Your task to perform on an android device: Google the capital of Brazil Image 0: 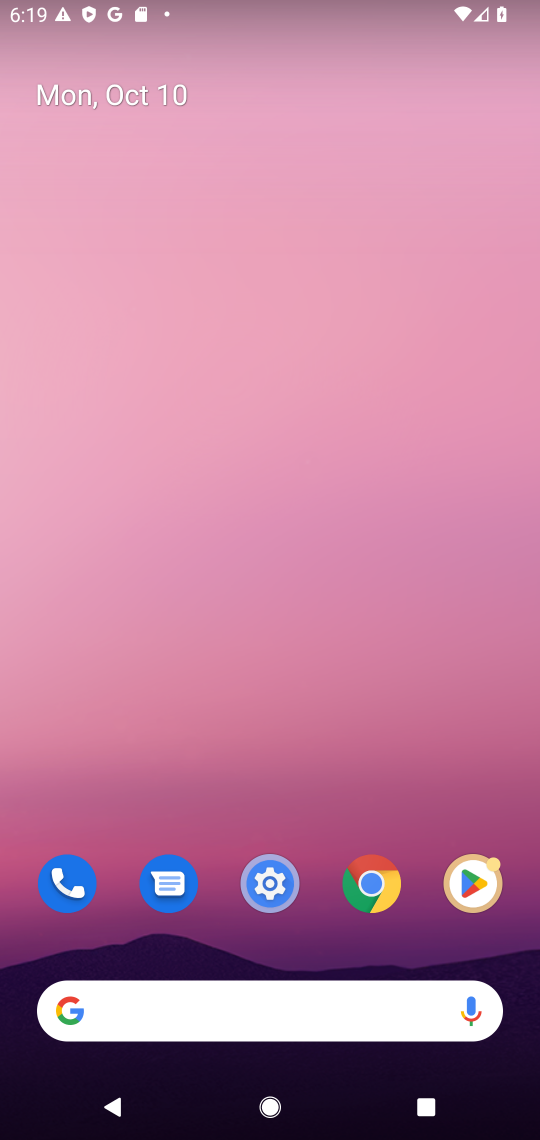
Step 0: drag from (278, 995) to (336, 199)
Your task to perform on an android device: Google the capital of Brazil Image 1: 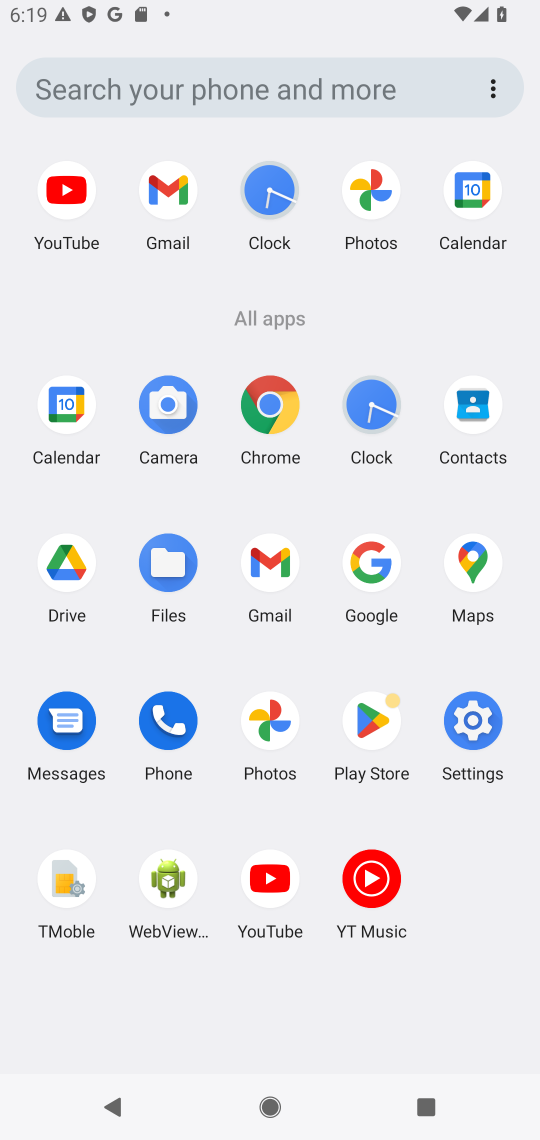
Step 1: click (375, 611)
Your task to perform on an android device: Google the capital of Brazil Image 2: 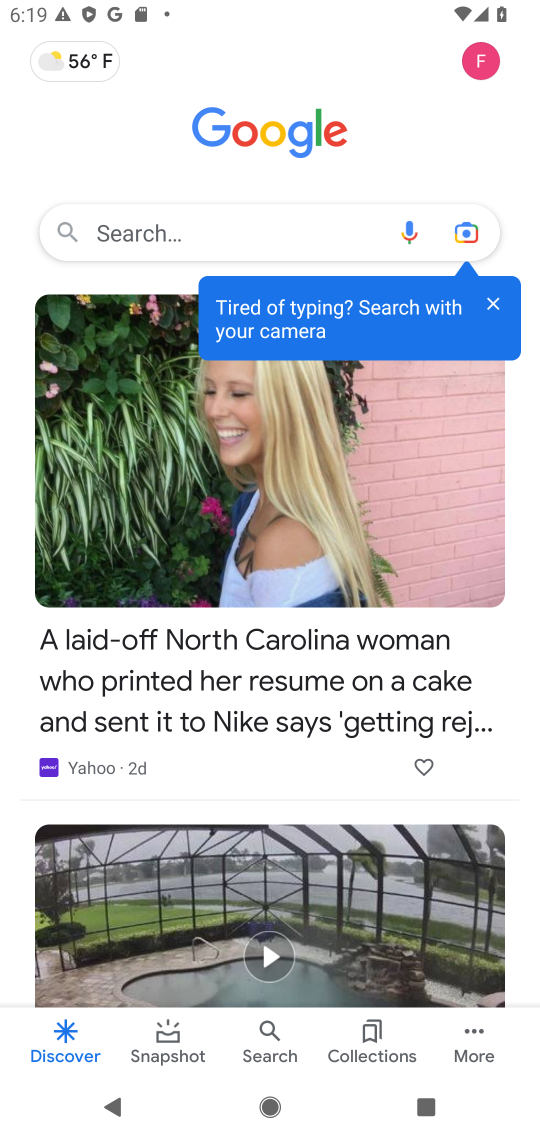
Step 2: click (226, 211)
Your task to perform on an android device: Google the capital of Brazil Image 3: 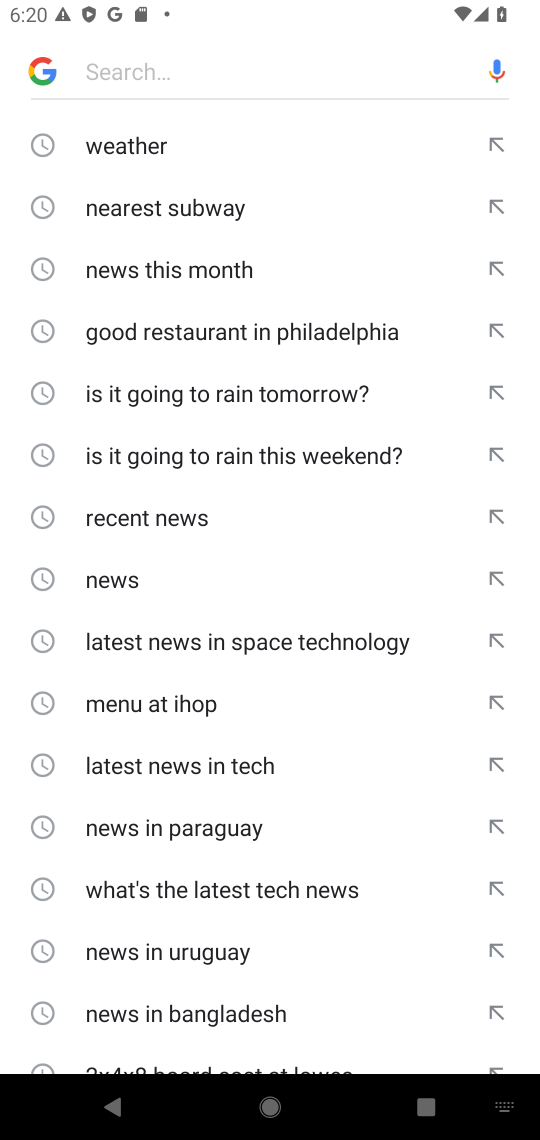
Step 3: type "capital of brazil"
Your task to perform on an android device: Google the capital of Brazil Image 4: 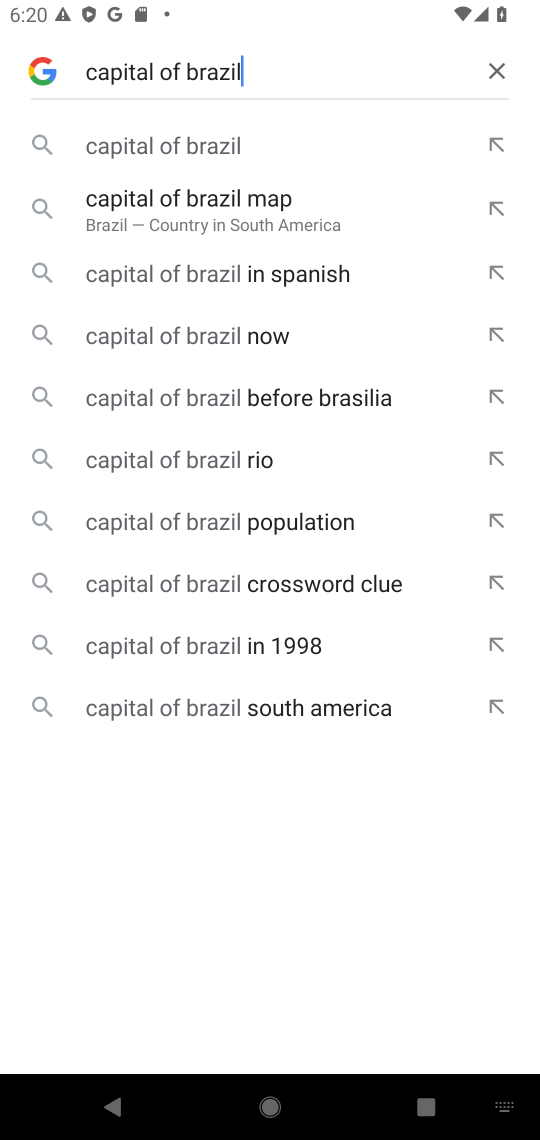
Step 4: click (170, 138)
Your task to perform on an android device: Google the capital of Brazil Image 5: 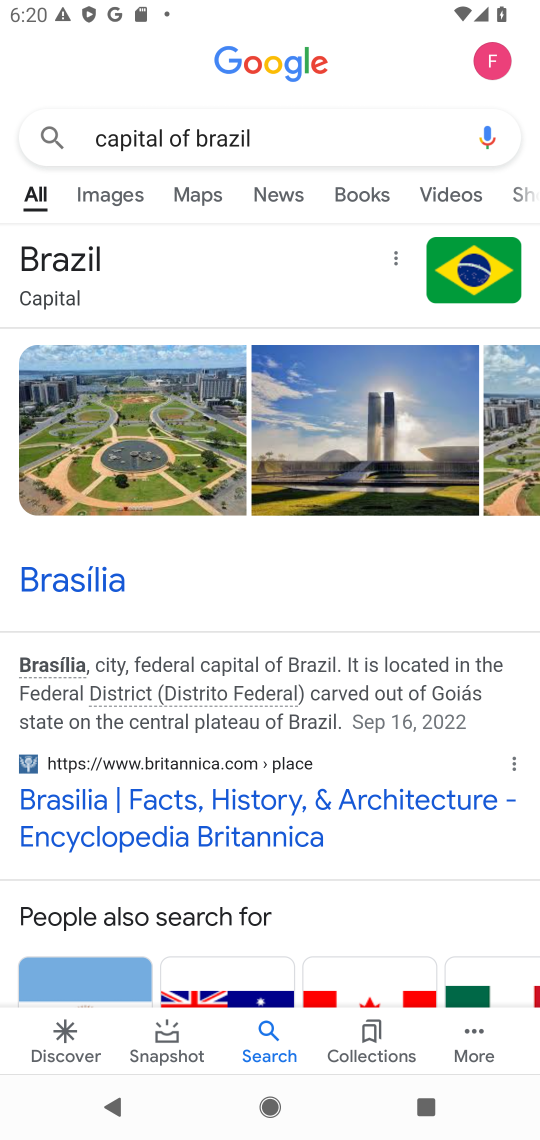
Step 5: task complete